Your task to perform on an android device: Set the phone to "Do not disturb". Image 0: 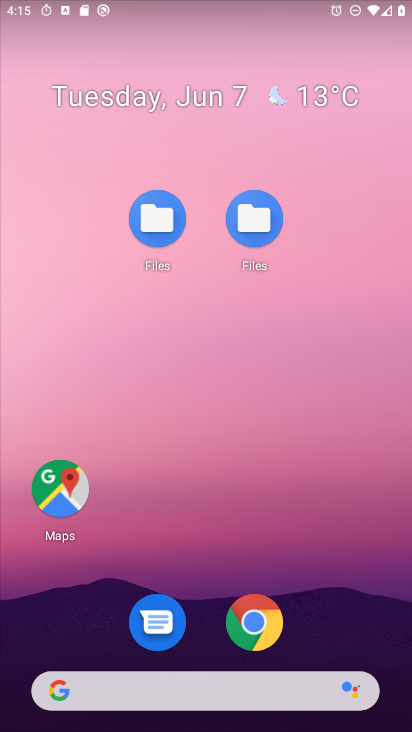
Step 0: drag from (355, 592) to (370, 355)
Your task to perform on an android device: Set the phone to "Do not disturb". Image 1: 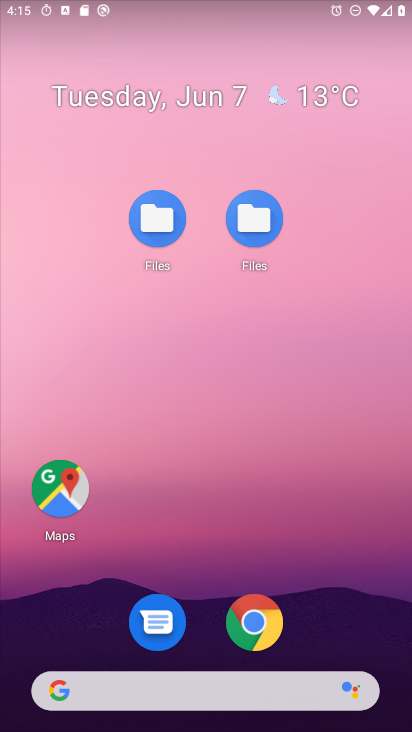
Step 1: drag from (384, 608) to (392, 44)
Your task to perform on an android device: Set the phone to "Do not disturb". Image 2: 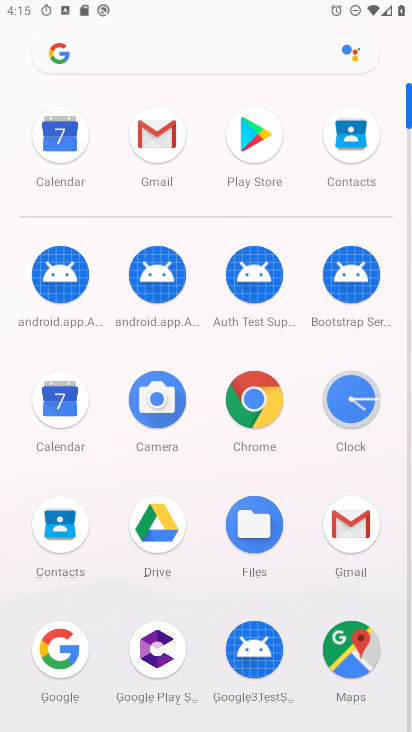
Step 2: click (405, 605)
Your task to perform on an android device: Set the phone to "Do not disturb". Image 3: 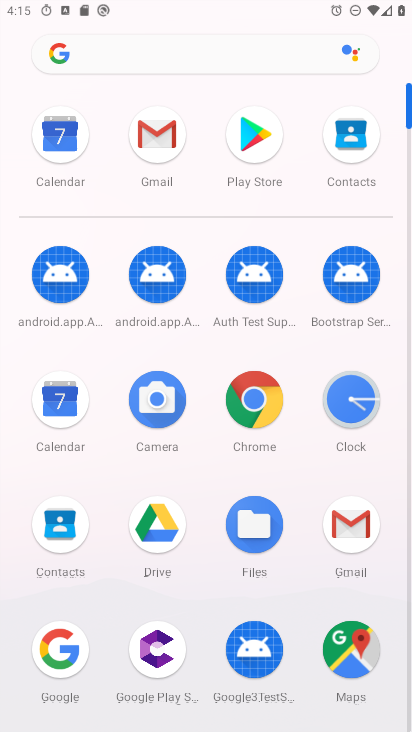
Step 3: click (408, 595)
Your task to perform on an android device: Set the phone to "Do not disturb". Image 4: 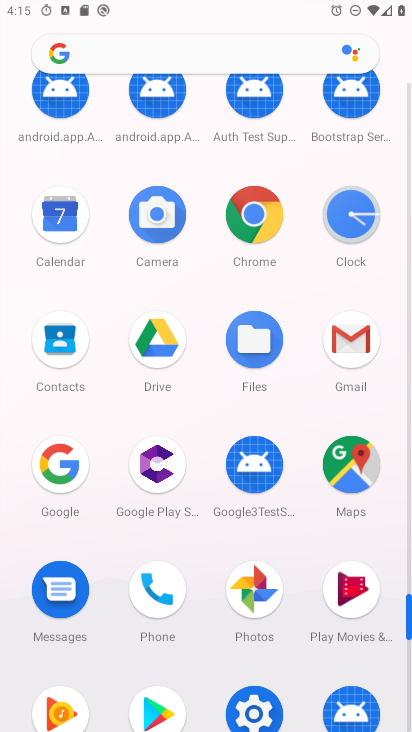
Step 4: click (269, 703)
Your task to perform on an android device: Set the phone to "Do not disturb". Image 5: 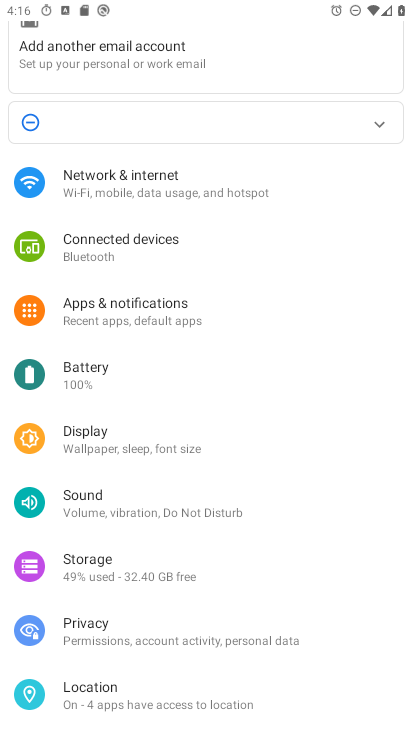
Step 5: click (190, 506)
Your task to perform on an android device: Set the phone to "Do not disturb". Image 6: 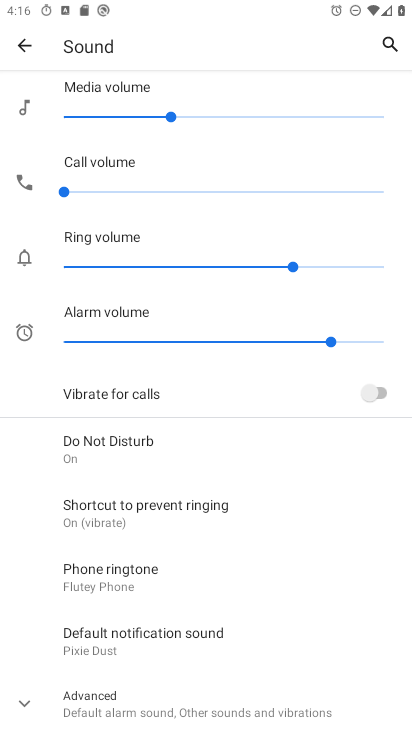
Step 6: click (115, 438)
Your task to perform on an android device: Set the phone to "Do not disturb". Image 7: 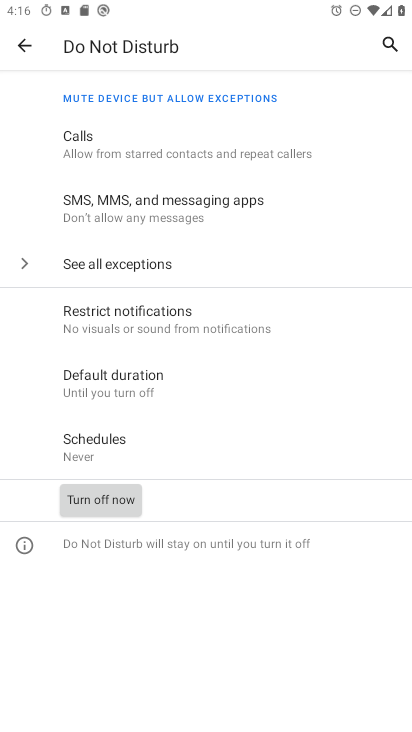
Step 7: task complete